Your task to perform on an android device: check android version Image 0: 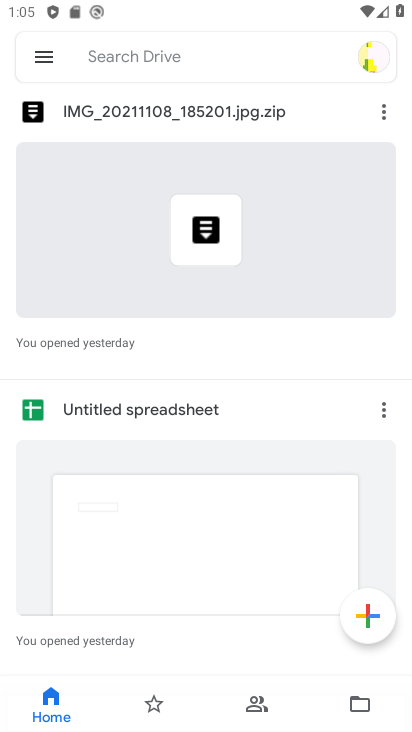
Step 0: press home button
Your task to perform on an android device: check android version Image 1: 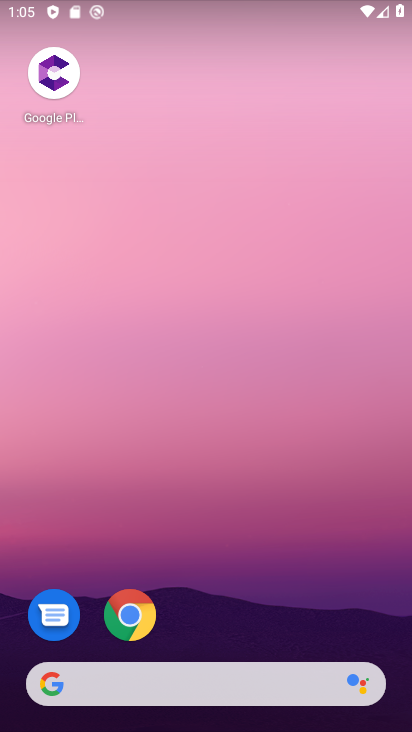
Step 1: drag from (227, 715) to (269, 57)
Your task to perform on an android device: check android version Image 2: 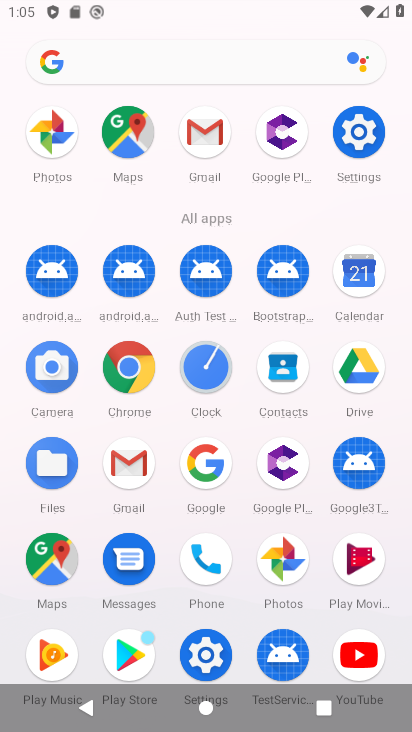
Step 2: click (209, 649)
Your task to perform on an android device: check android version Image 3: 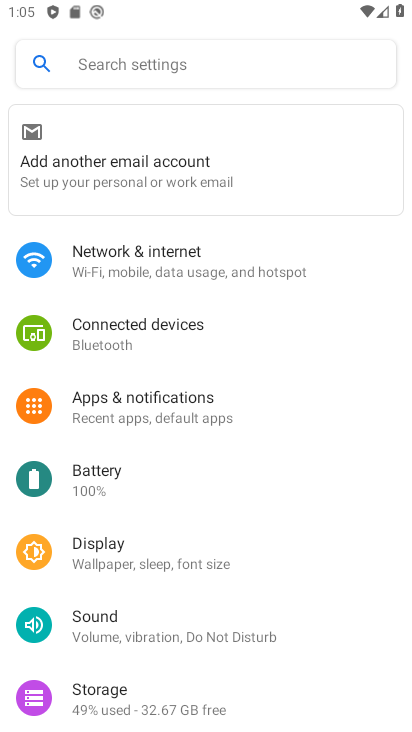
Step 3: drag from (131, 701) to (224, 179)
Your task to perform on an android device: check android version Image 4: 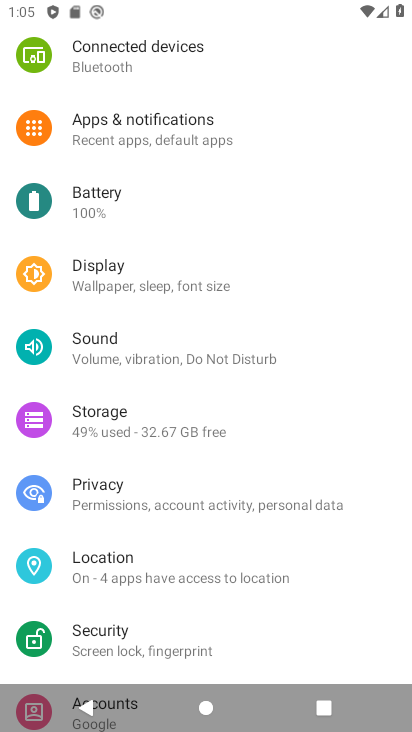
Step 4: drag from (149, 605) to (243, 198)
Your task to perform on an android device: check android version Image 5: 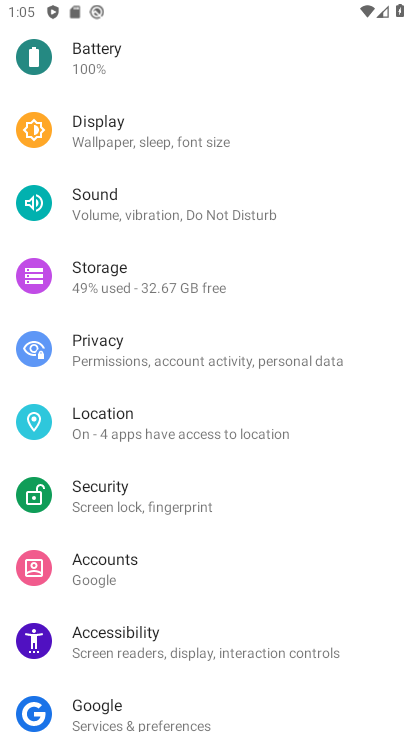
Step 5: drag from (156, 663) to (263, 301)
Your task to perform on an android device: check android version Image 6: 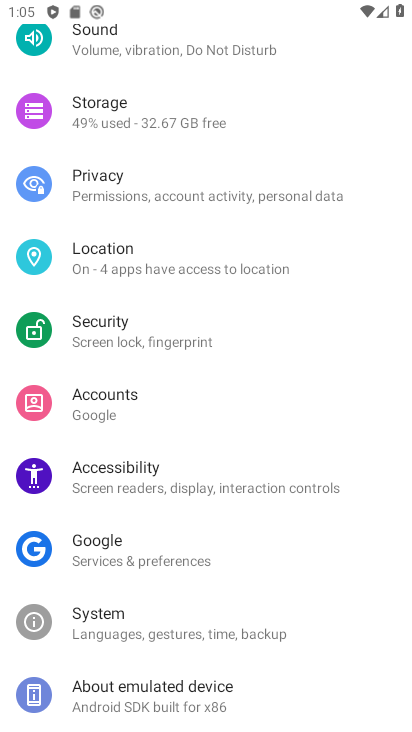
Step 6: drag from (126, 631) to (245, 171)
Your task to perform on an android device: check android version Image 7: 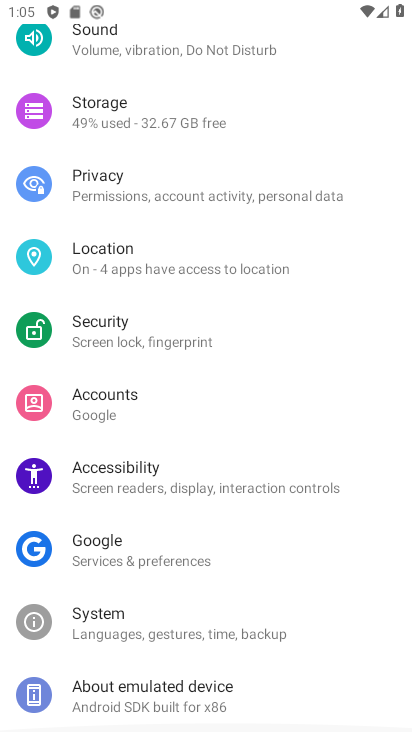
Step 7: click (145, 716)
Your task to perform on an android device: check android version Image 8: 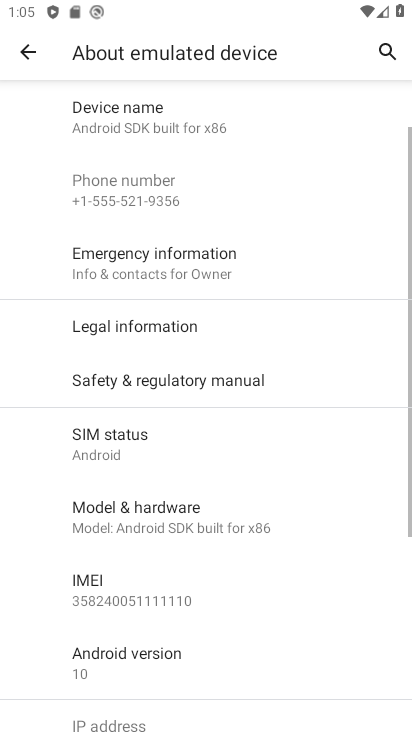
Step 8: click (156, 654)
Your task to perform on an android device: check android version Image 9: 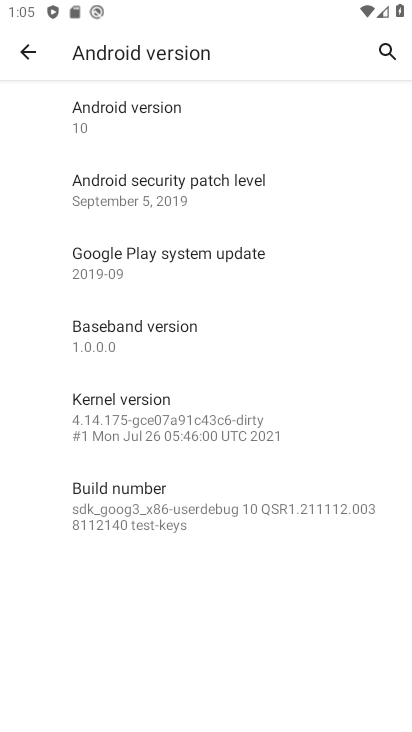
Step 9: task complete